Your task to perform on an android device: When is my next meeting? Image 0: 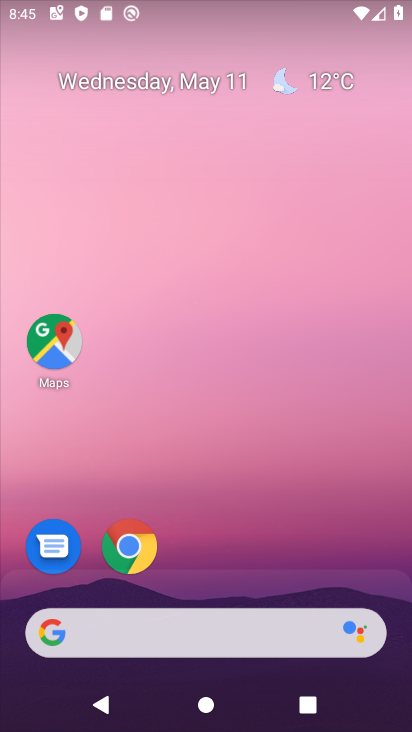
Step 0: drag from (399, 635) to (272, 122)
Your task to perform on an android device: When is my next meeting? Image 1: 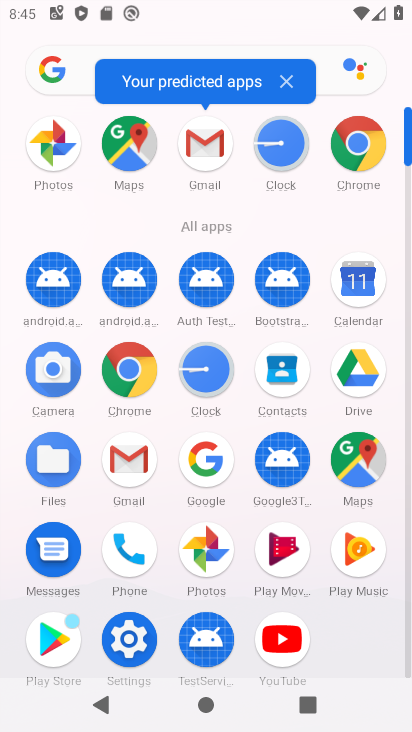
Step 1: click (409, 656)
Your task to perform on an android device: When is my next meeting? Image 2: 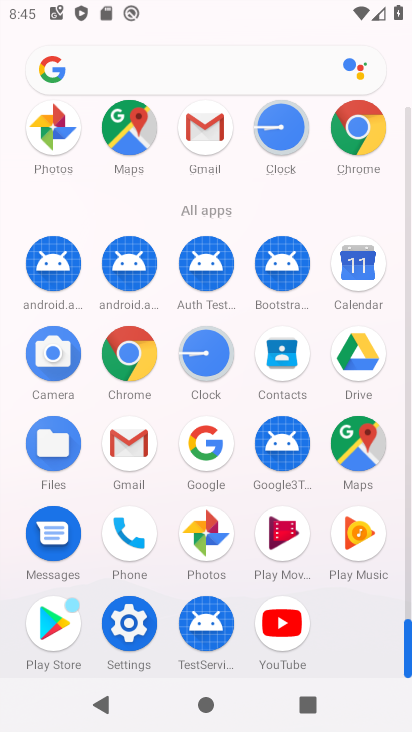
Step 2: click (358, 261)
Your task to perform on an android device: When is my next meeting? Image 3: 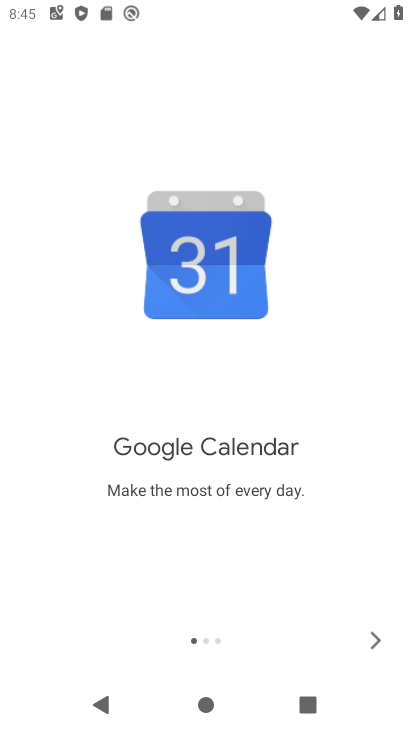
Step 3: click (369, 642)
Your task to perform on an android device: When is my next meeting? Image 4: 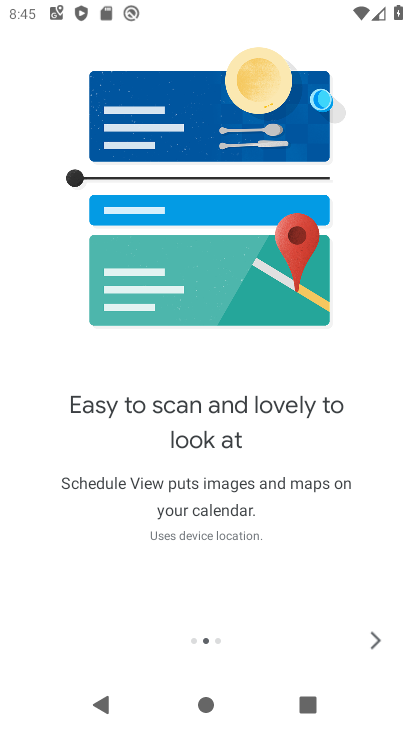
Step 4: click (369, 639)
Your task to perform on an android device: When is my next meeting? Image 5: 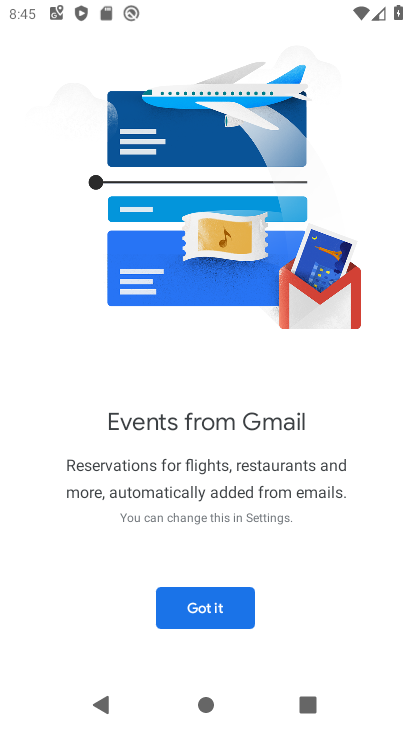
Step 5: click (196, 604)
Your task to perform on an android device: When is my next meeting? Image 6: 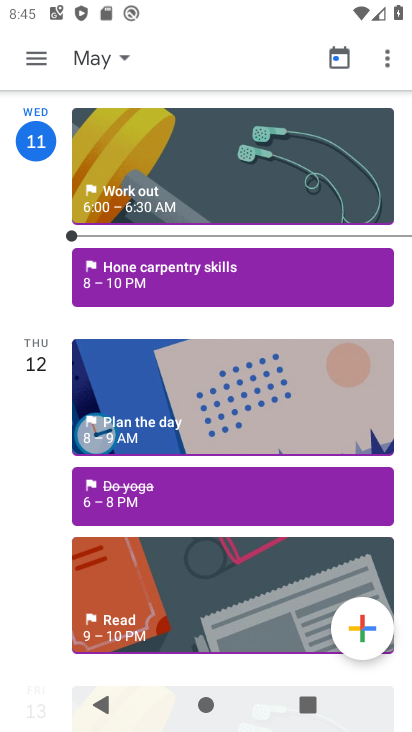
Step 6: task complete